Your task to perform on an android device: Open network settings Image 0: 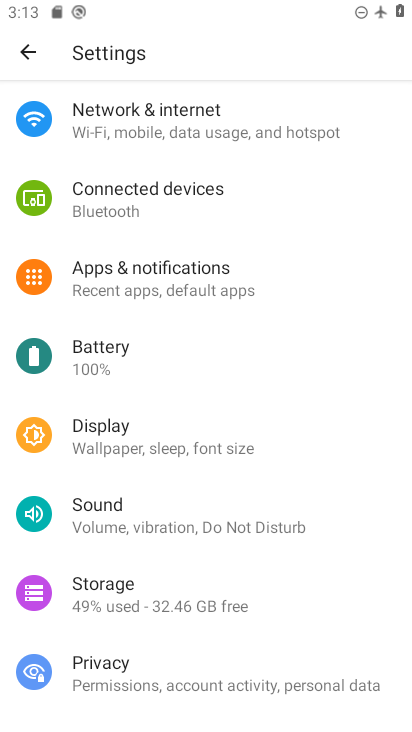
Step 0: click (144, 123)
Your task to perform on an android device: Open network settings Image 1: 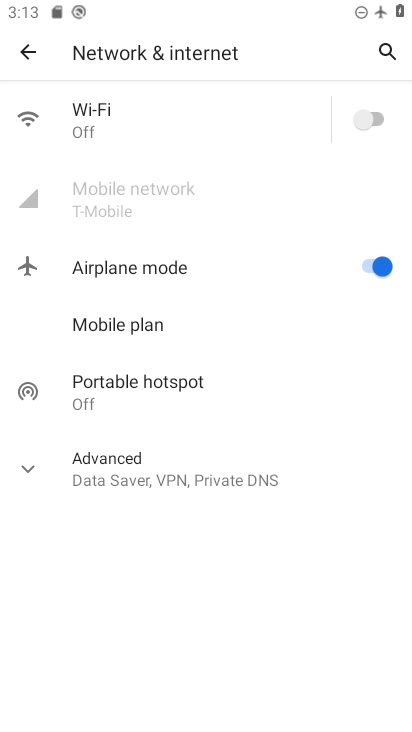
Step 1: click (378, 268)
Your task to perform on an android device: Open network settings Image 2: 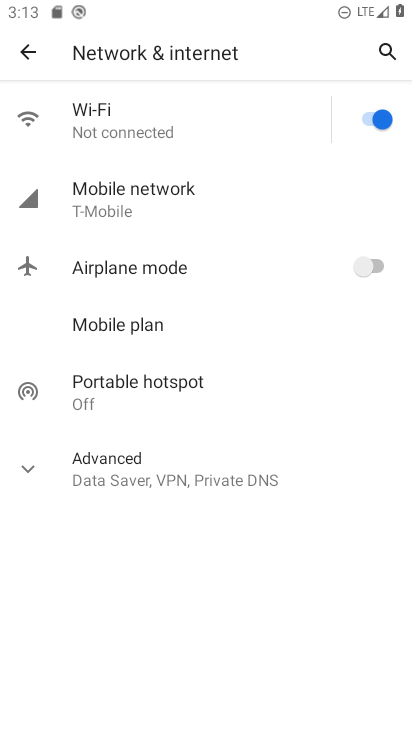
Step 2: click (158, 206)
Your task to perform on an android device: Open network settings Image 3: 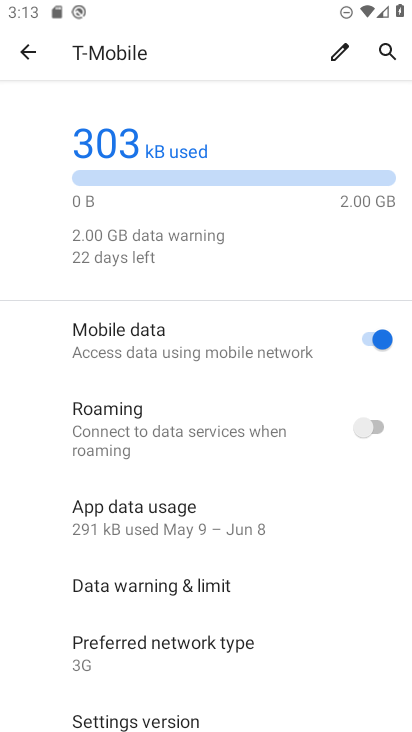
Step 3: task complete